Your task to perform on an android device: Go to ESPN.com Image 0: 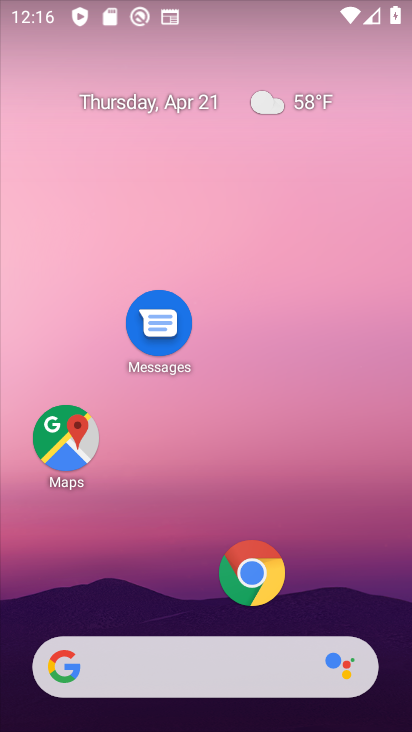
Step 0: drag from (173, 566) to (132, 102)
Your task to perform on an android device: Go to ESPN.com Image 1: 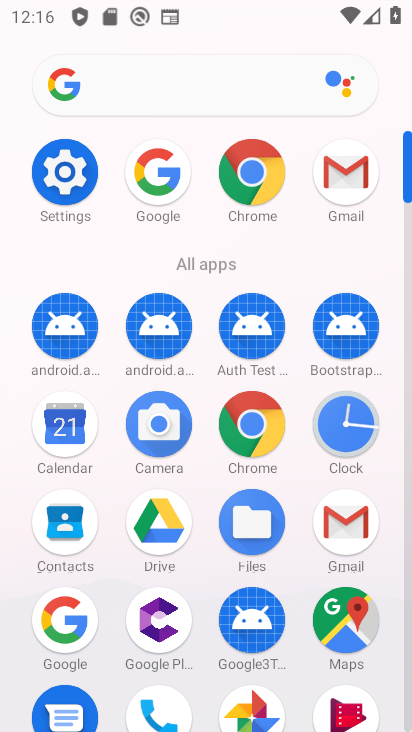
Step 1: click (154, 166)
Your task to perform on an android device: Go to ESPN.com Image 2: 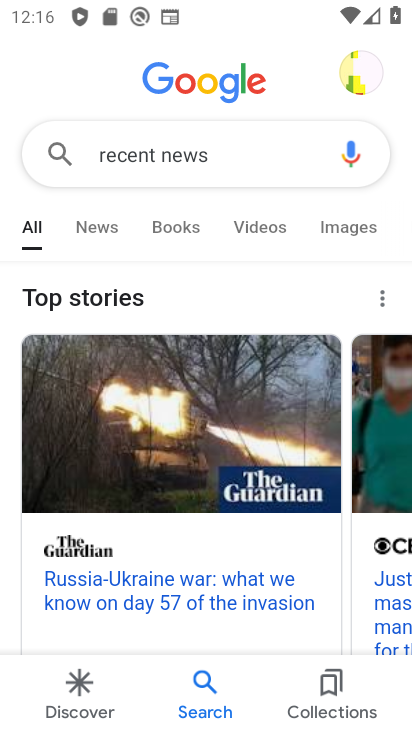
Step 2: click (260, 148)
Your task to perform on an android device: Go to ESPN.com Image 3: 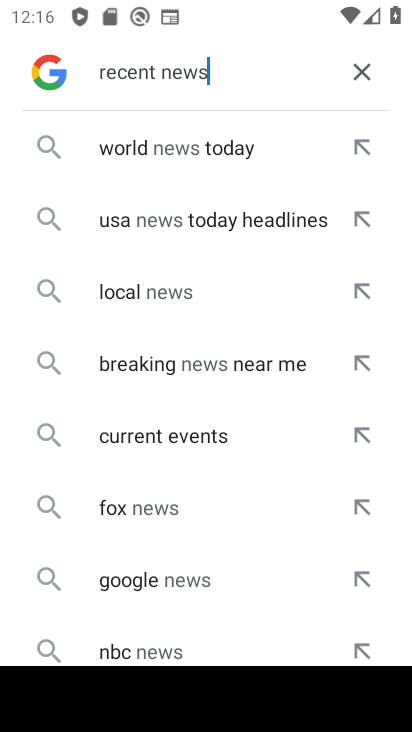
Step 3: click (359, 72)
Your task to perform on an android device: Go to ESPN.com Image 4: 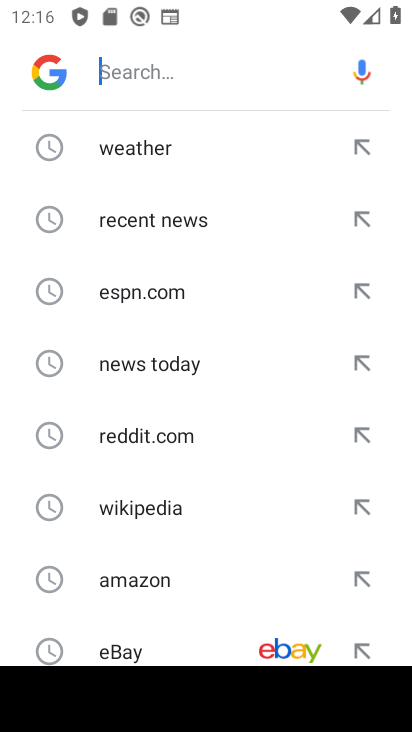
Step 4: type "espn.com"
Your task to perform on an android device: Go to ESPN.com Image 5: 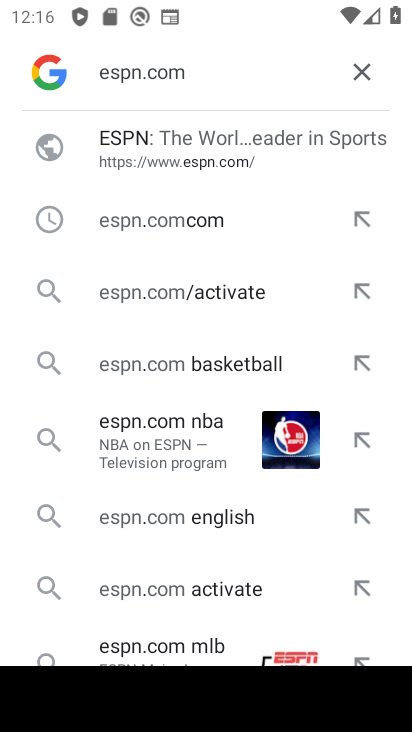
Step 5: click (164, 226)
Your task to perform on an android device: Go to ESPN.com Image 6: 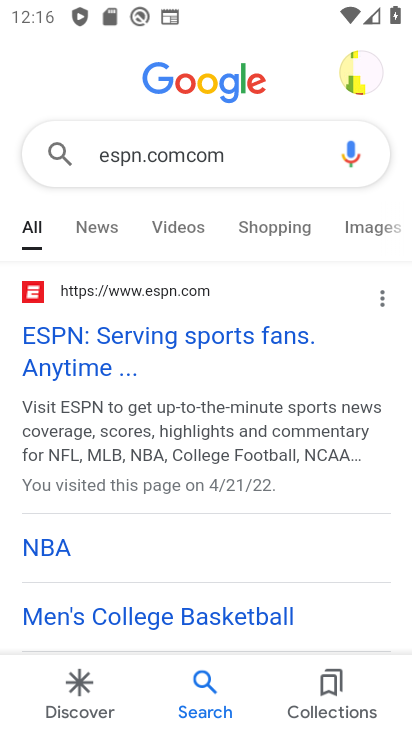
Step 6: task complete